Your task to perform on an android device: find photos in the google photos app Image 0: 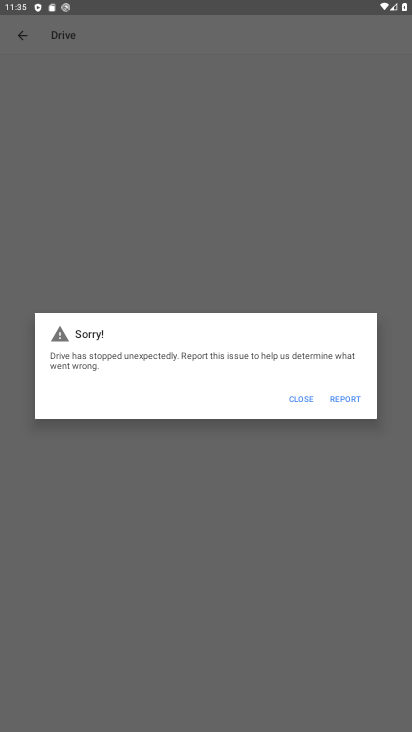
Step 0: press home button
Your task to perform on an android device: find photos in the google photos app Image 1: 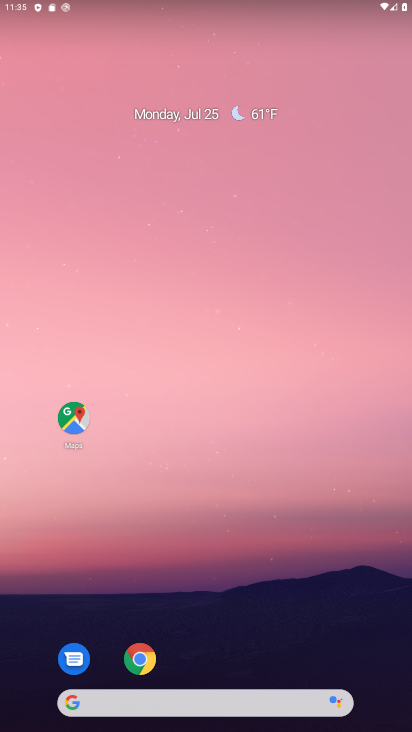
Step 1: drag from (238, 687) to (238, 26)
Your task to perform on an android device: find photos in the google photos app Image 2: 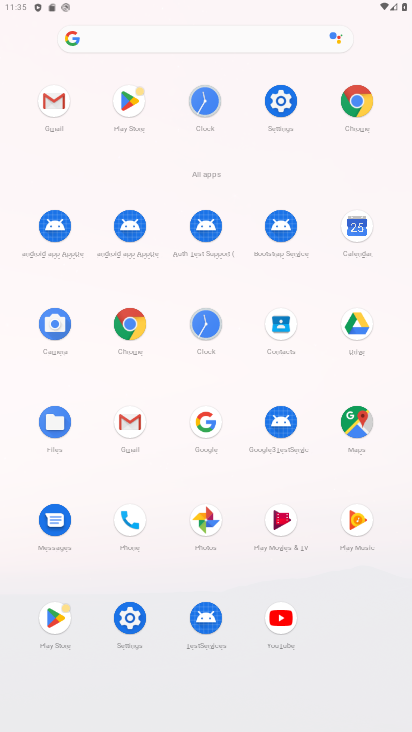
Step 2: click (209, 515)
Your task to perform on an android device: find photos in the google photos app Image 3: 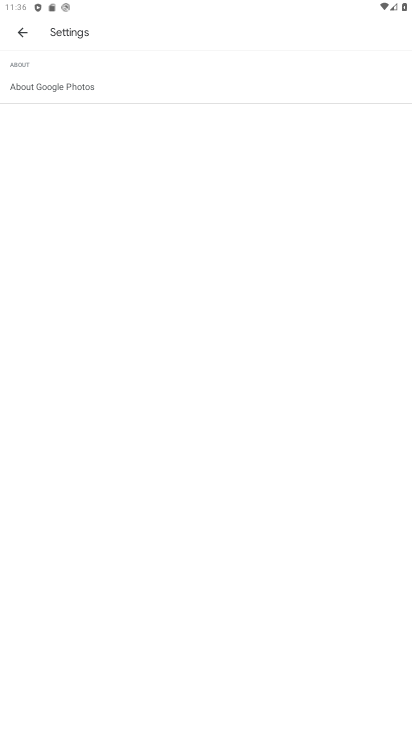
Step 3: click (23, 31)
Your task to perform on an android device: find photos in the google photos app Image 4: 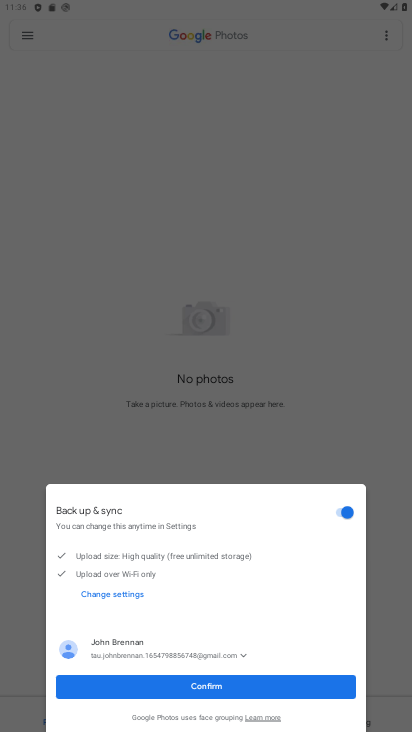
Step 4: click (217, 684)
Your task to perform on an android device: find photos in the google photos app Image 5: 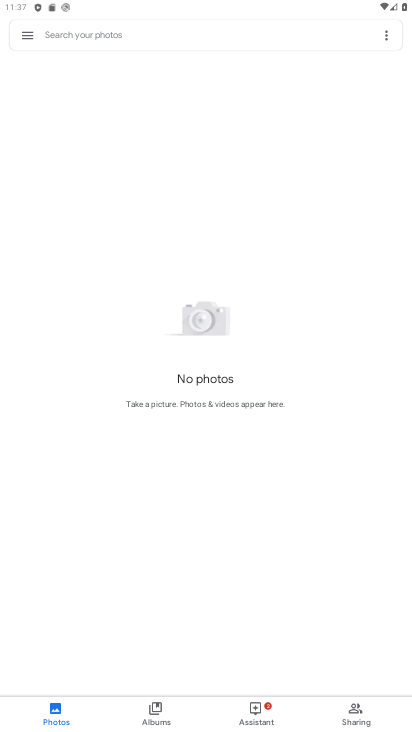
Step 5: press home button
Your task to perform on an android device: find photos in the google photos app Image 6: 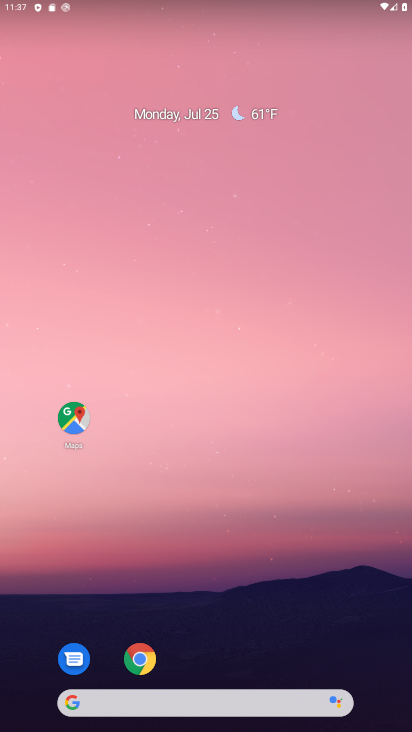
Step 6: drag from (191, 725) to (185, 225)
Your task to perform on an android device: find photos in the google photos app Image 7: 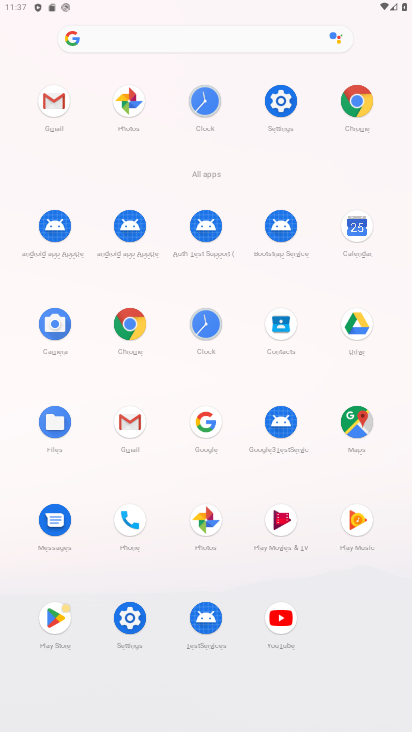
Step 7: click (206, 515)
Your task to perform on an android device: find photos in the google photos app Image 8: 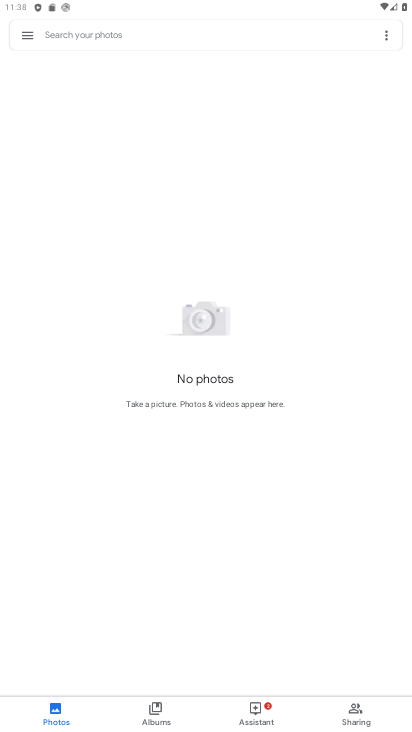
Step 8: task complete